Your task to perform on an android device: Open Google Image 0: 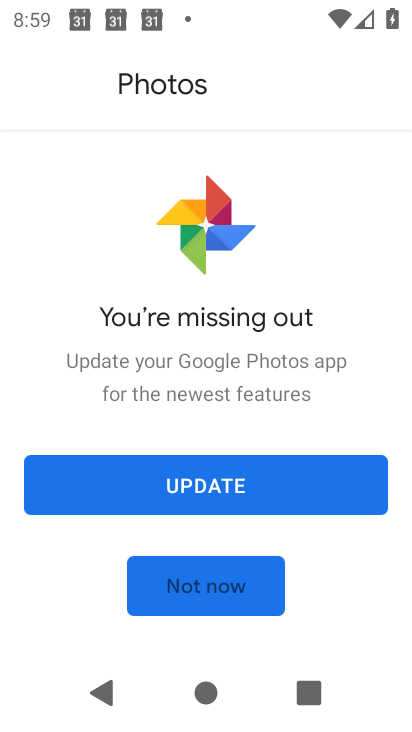
Step 0: press home button
Your task to perform on an android device: Open Google Image 1: 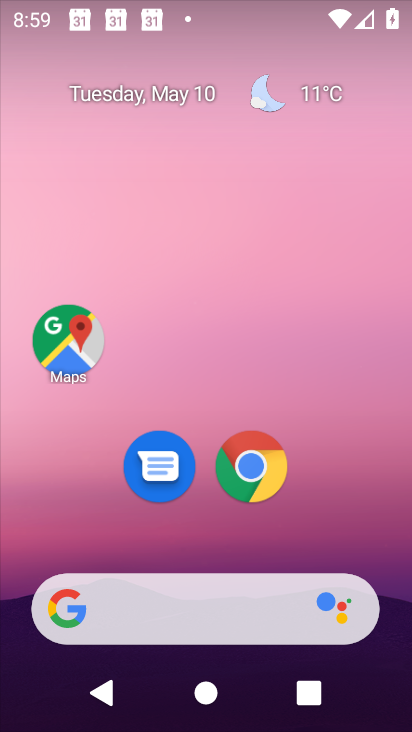
Step 1: click (223, 622)
Your task to perform on an android device: Open Google Image 2: 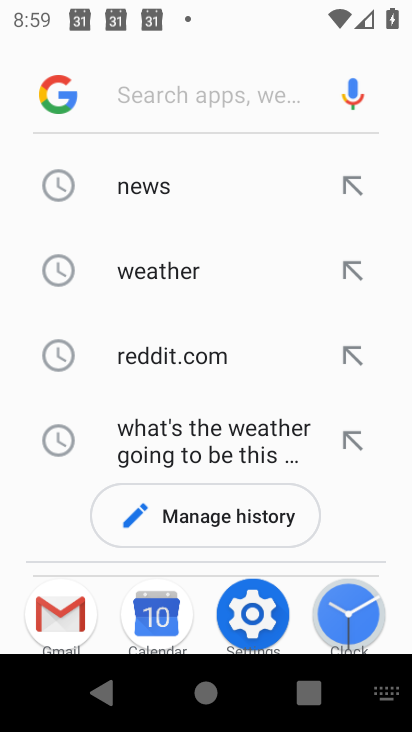
Step 2: click (58, 106)
Your task to perform on an android device: Open Google Image 3: 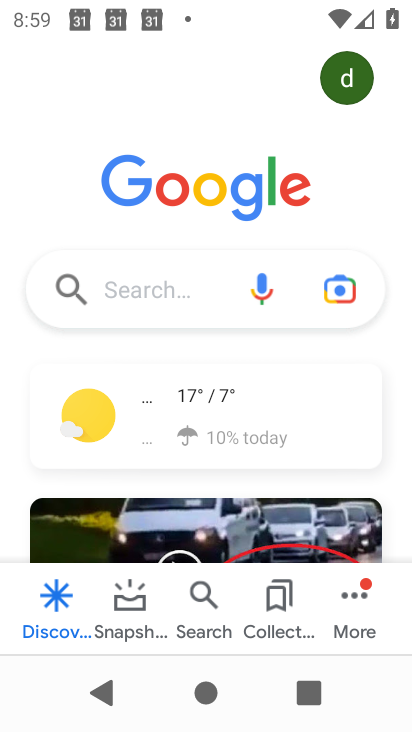
Step 3: task complete